Your task to perform on an android device: change alarm snooze length Image 0: 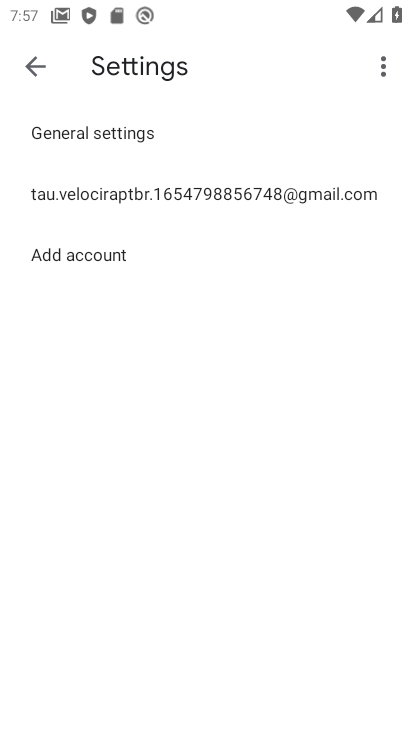
Step 0: press home button
Your task to perform on an android device: change alarm snooze length Image 1: 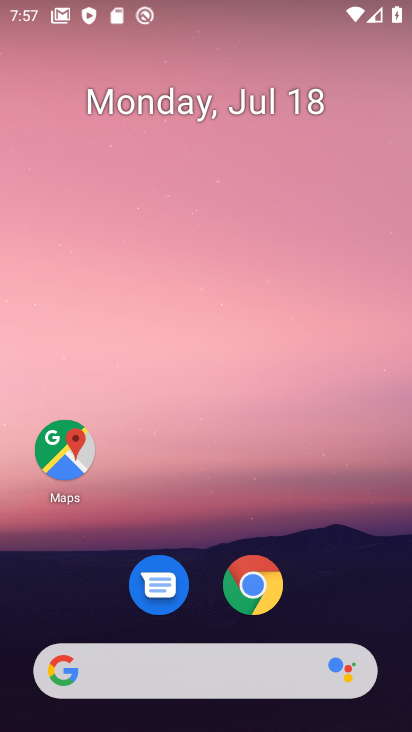
Step 1: click (69, 456)
Your task to perform on an android device: change alarm snooze length Image 2: 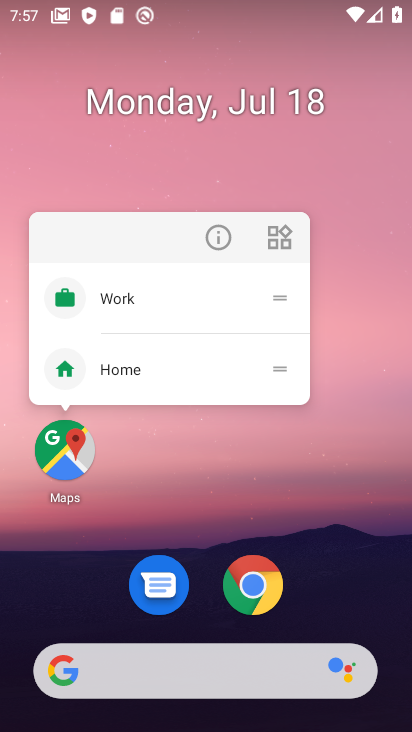
Step 2: click (59, 459)
Your task to perform on an android device: change alarm snooze length Image 3: 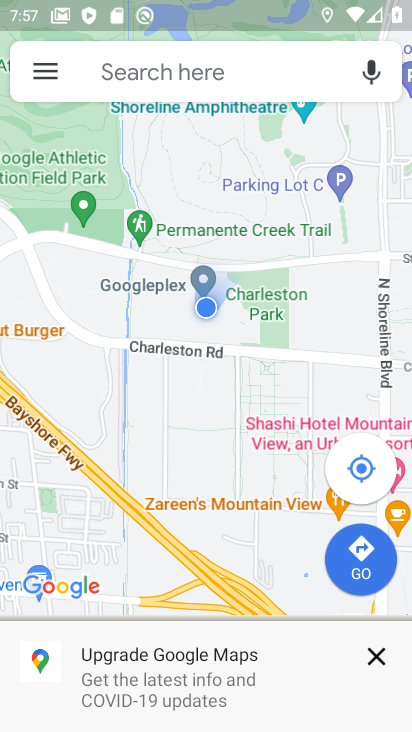
Step 3: press home button
Your task to perform on an android device: change alarm snooze length Image 4: 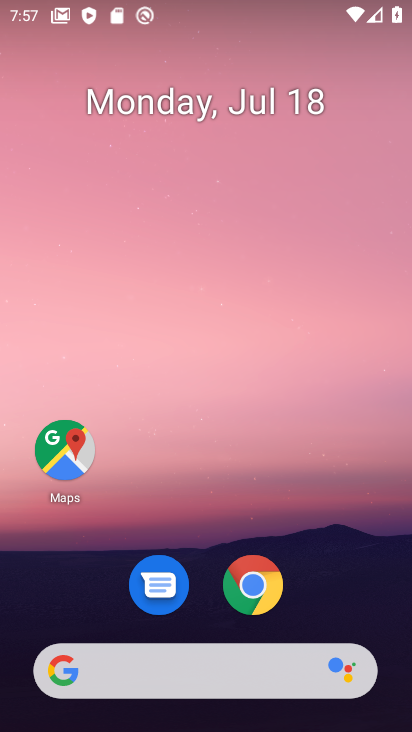
Step 4: drag from (205, 629) to (321, 54)
Your task to perform on an android device: change alarm snooze length Image 5: 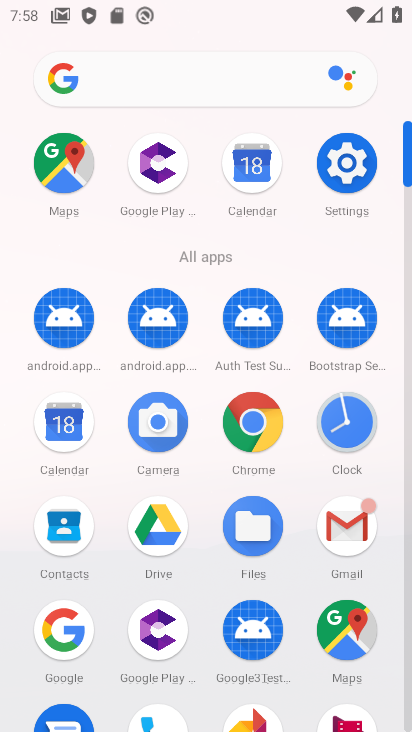
Step 5: click (353, 425)
Your task to perform on an android device: change alarm snooze length Image 6: 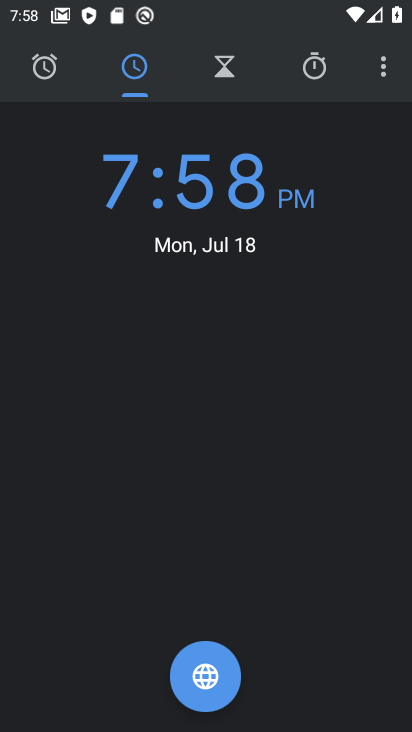
Step 6: click (385, 70)
Your task to perform on an android device: change alarm snooze length Image 7: 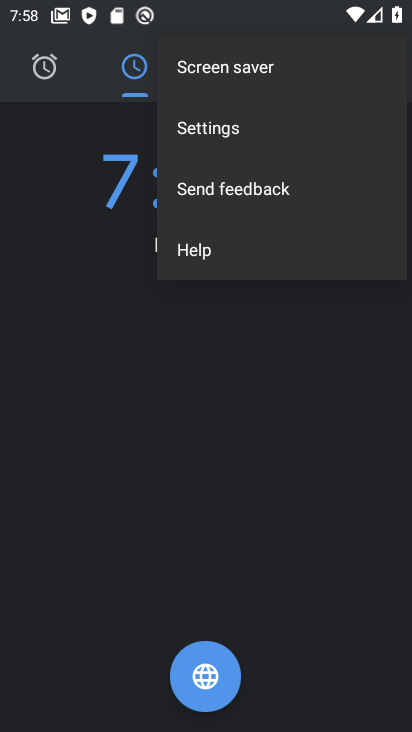
Step 7: click (211, 125)
Your task to perform on an android device: change alarm snooze length Image 8: 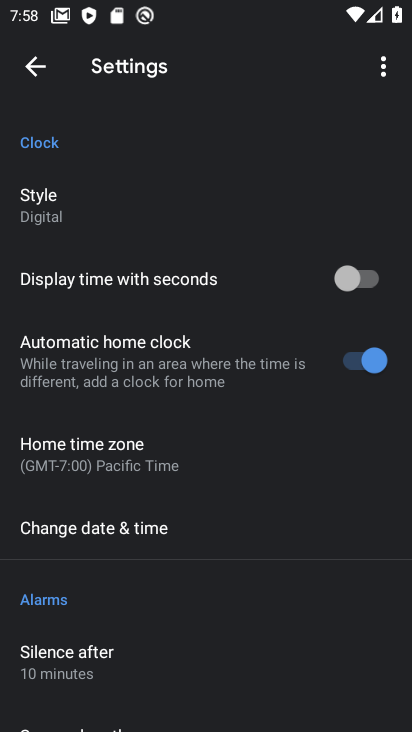
Step 8: drag from (213, 527) to (381, 113)
Your task to perform on an android device: change alarm snooze length Image 9: 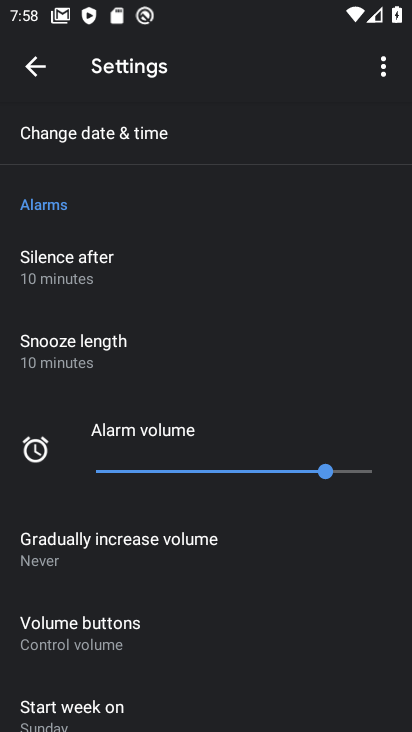
Step 9: click (111, 351)
Your task to perform on an android device: change alarm snooze length Image 10: 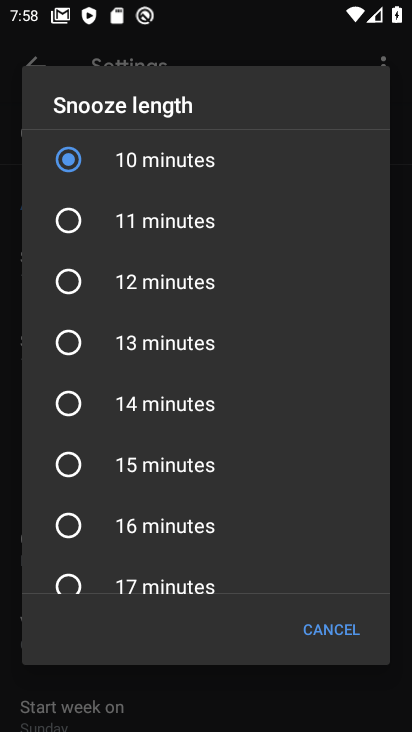
Step 10: click (66, 472)
Your task to perform on an android device: change alarm snooze length Image 11: 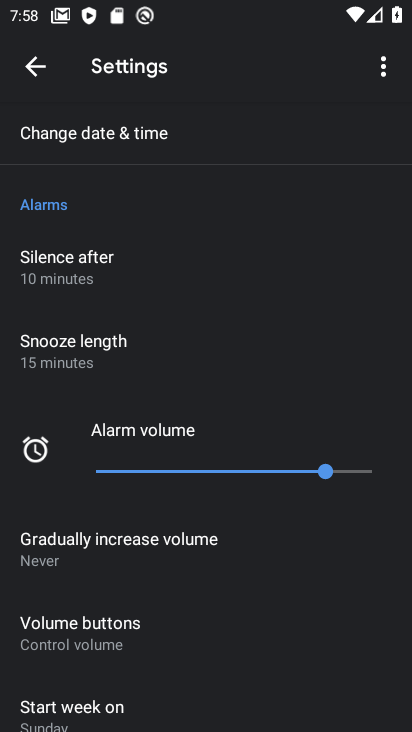
Step 11: task complete